Your task to perform on an android device: What is the recent news? Image 0: 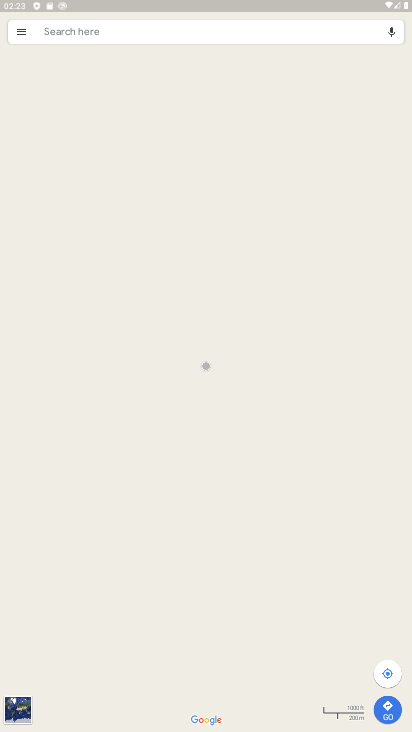
Step 0: press home button
Your task to perform on an android device: What is the recent news? Image 1: 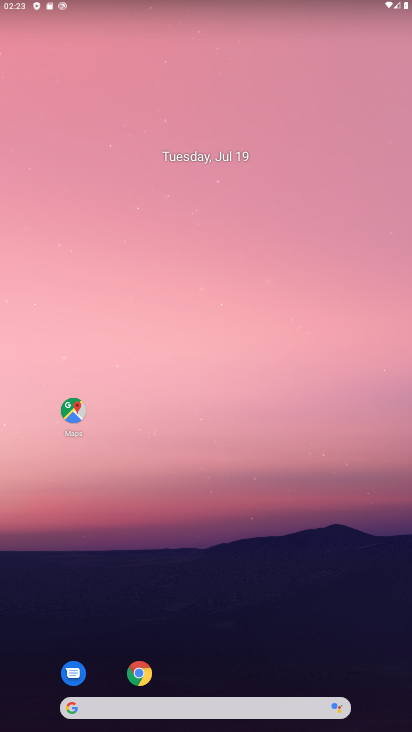
Step 1: task complete